Your task to perform on an android device: Open the map Image 0: 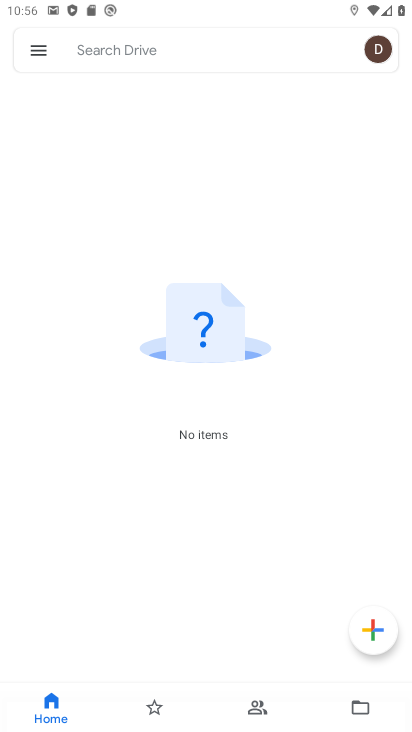
Step 0: press home button
Your task to perform on an android device: Open the map Image 1: 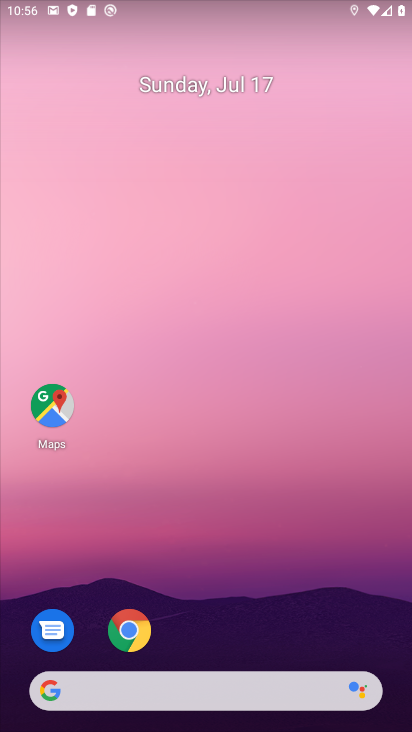
Step 1: drag from (151, 648) to (269, 112)
Your task to perform on an android device: Open the map Image 2: 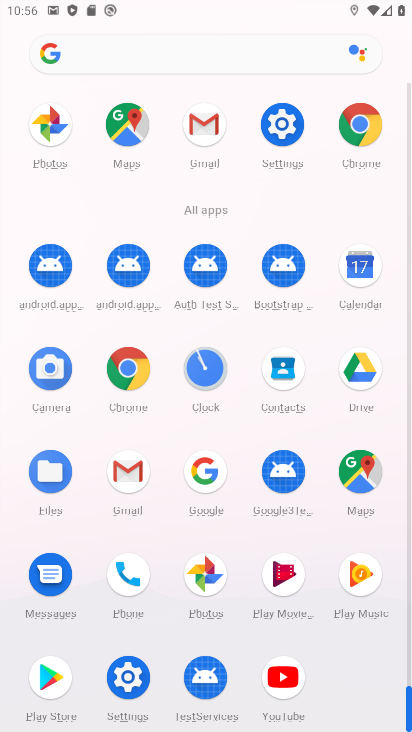
Step 2: click (362, 476)
Your task to perform on an android device: Open the map Image 3: 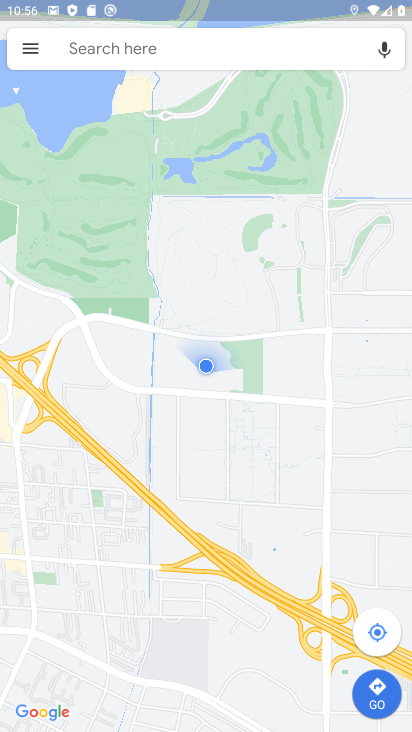
Step 3: task complete